Your task to perform on an android device: Go to Yahoo.com Image 0: 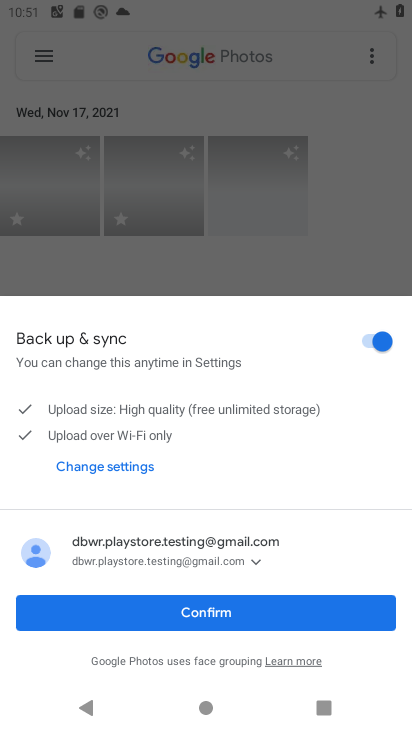
Step 0: press home button
Your task to perform on an android device: Go to Yahoo.com Image 1: 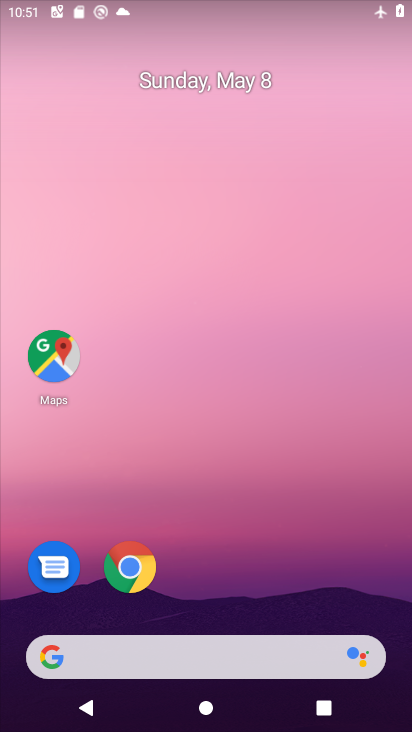
Step 1: drag from (253, 581) to (238, 144)
Your task to perform on an android device: Go to Yahoo.com Image 2: 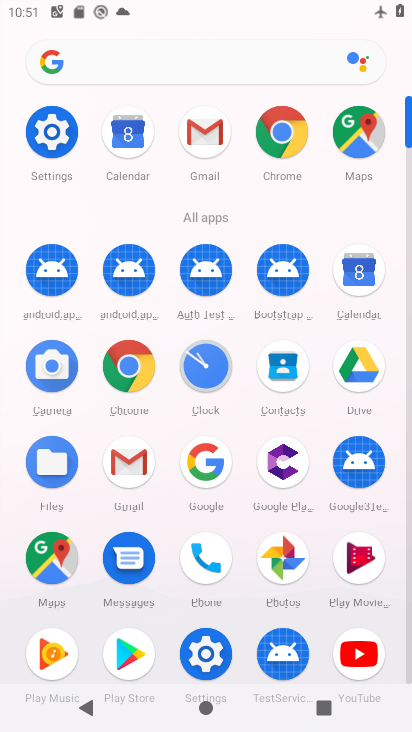
Step 2: click (283, 169)
Your task to perform on an android device: Go to Yahoo.com Image 3: 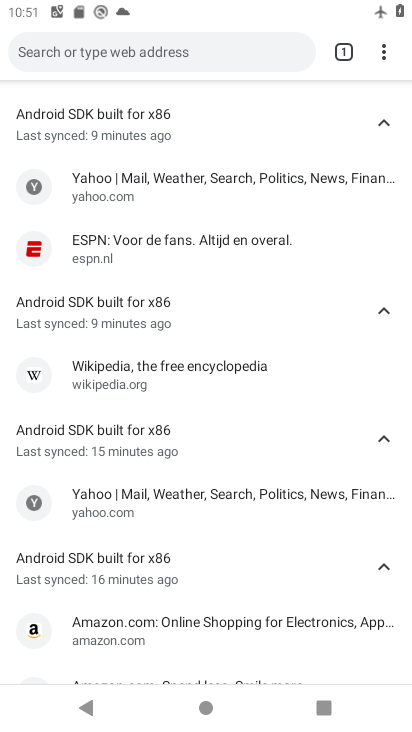
Step 3: click (123, 185)
Your task to perform on an android device: Go to Yahoo.com Image 4: 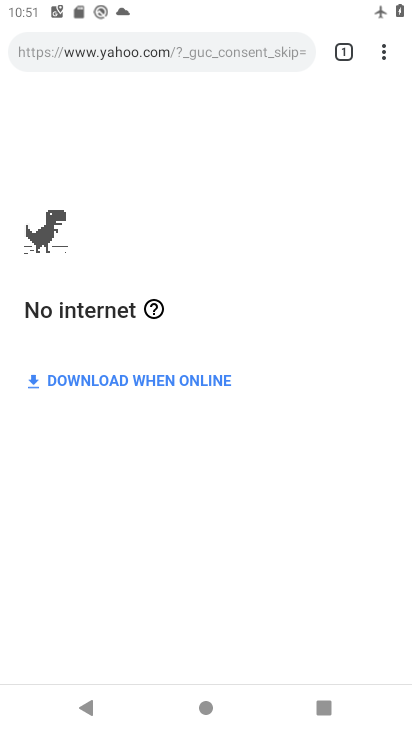
Step 4: task complete